Your task to perform on an android device: Open Google Maps Image 0: 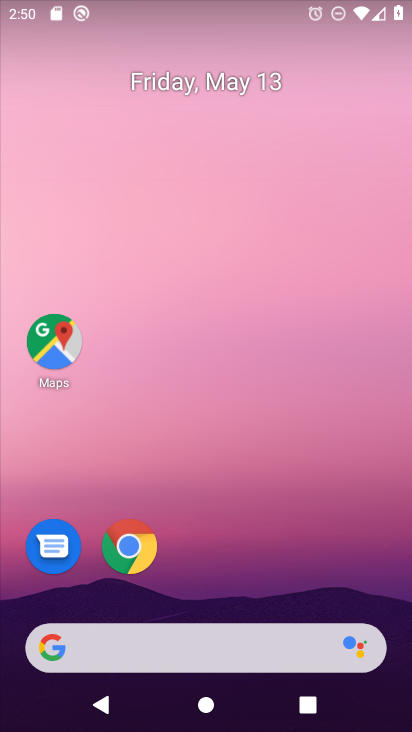
Step 0: click (68, 333)
Your task to perform on an android device: Open Google Maps Image 1: 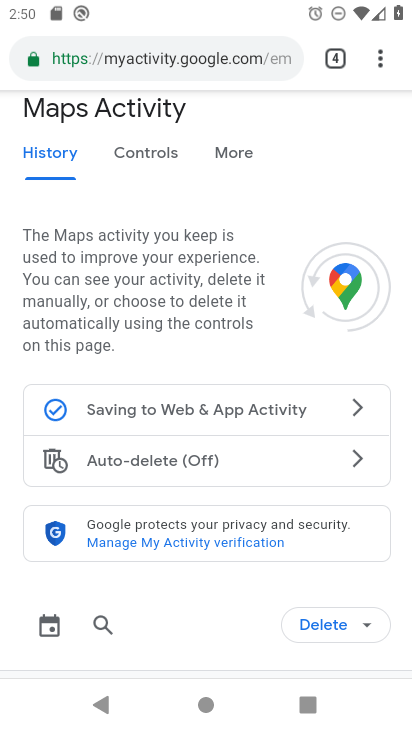
Step 1: task complete